Your task to perform on an android device: Go to internet settings Image 0: 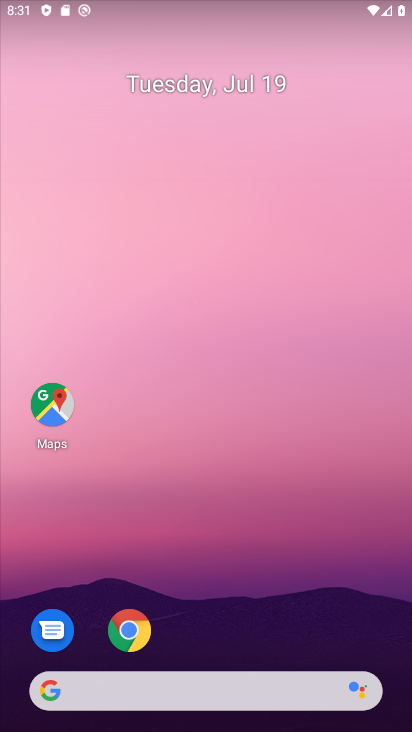
Step 0: drag from (211, 603) to (221, 161)
Your task to perform on an android device: Go to internet settings Image 1: 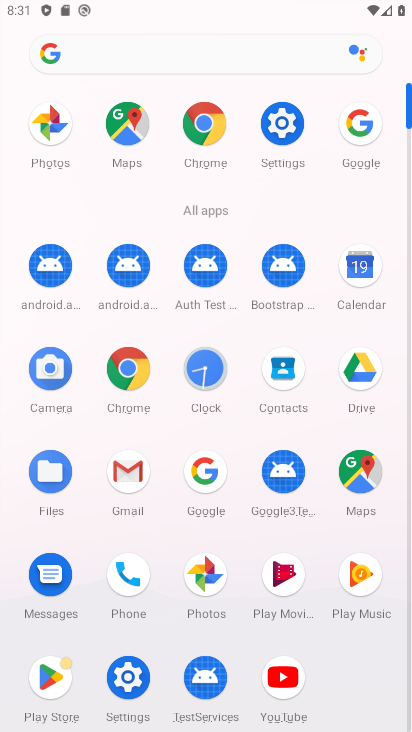
Step 1: click (278, 127)
Your task to perform on an android device: Go to internet settings Image 2: 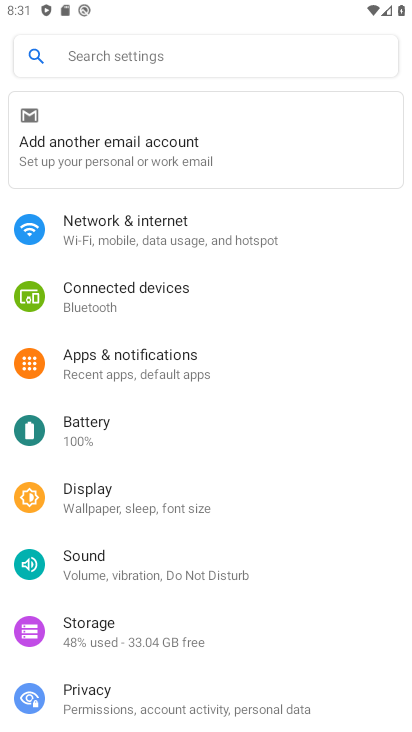
Step 2: click (139, 223)
Your task to perform on an android device: Go to internet settings Image 3: 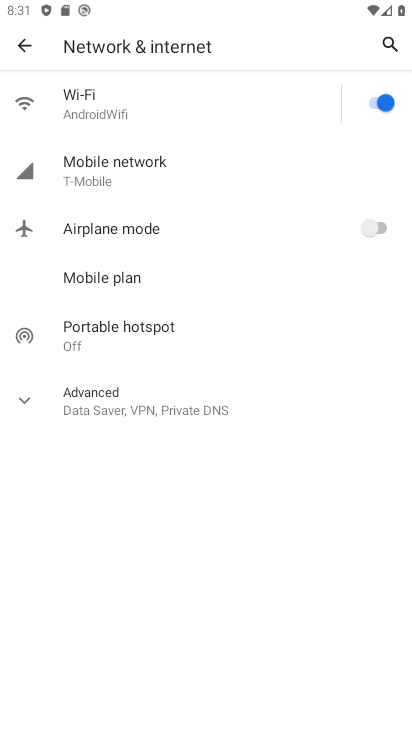
Step 3: click (110, 116)
Your task to perform on an android device: Go to internet settings Image 4: 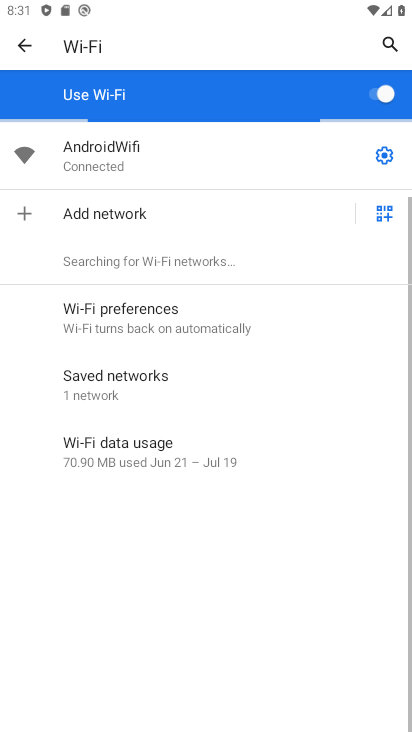
Step 4: click (182, 157)
Your task to perform on an android device: Go to internet settings Image 5: 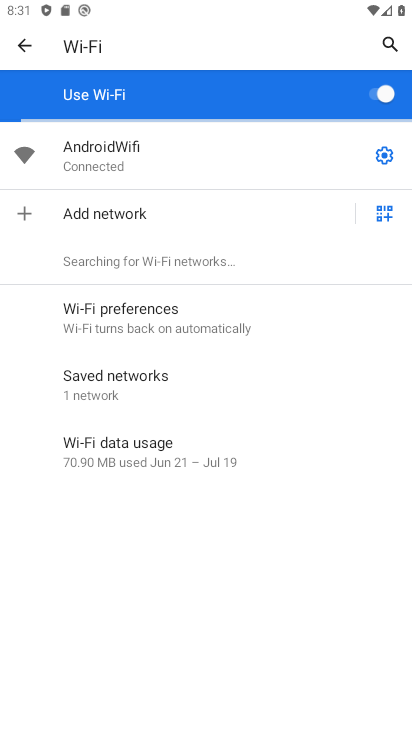
Step 5: click (246, 161)
Your task to perform on an android device: Go to internet settings Image 6: 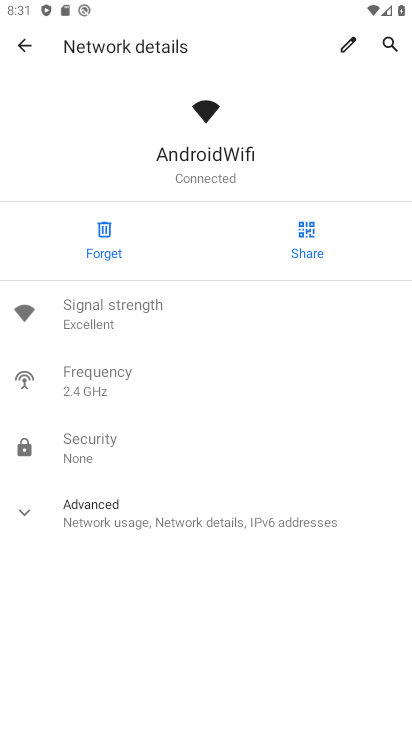
Step 6: task complete